Your task to perform on an android device: toggle improve location accuracy Image 0: 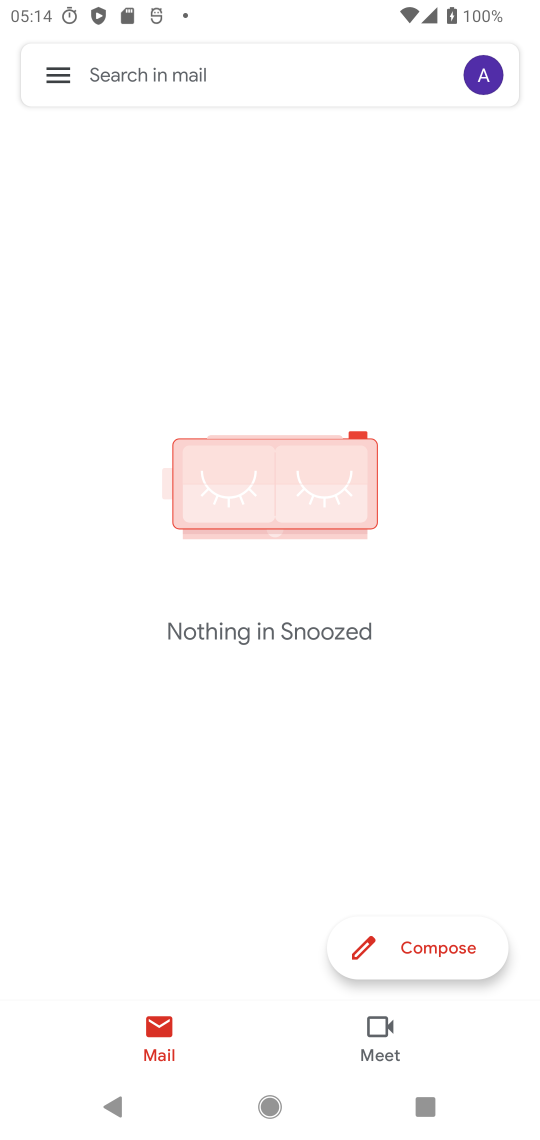
Step 0: press home button
Your task to perform on an android device: toggle improve location accuracy Image 1: 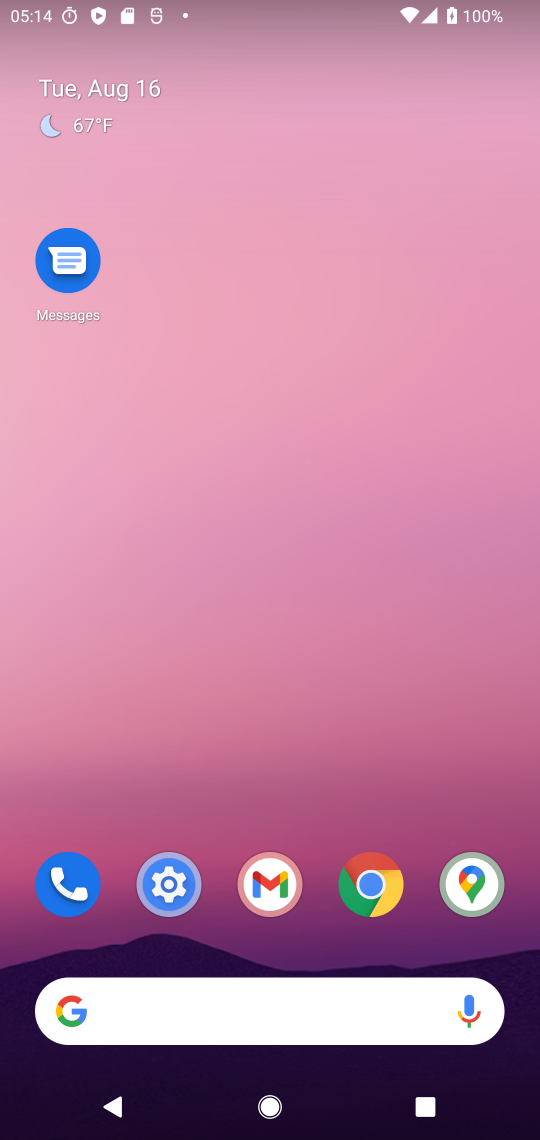
Step 1: click (173, 892)
Your task to perform on an android device: toggle improve location accuracy Image 2: 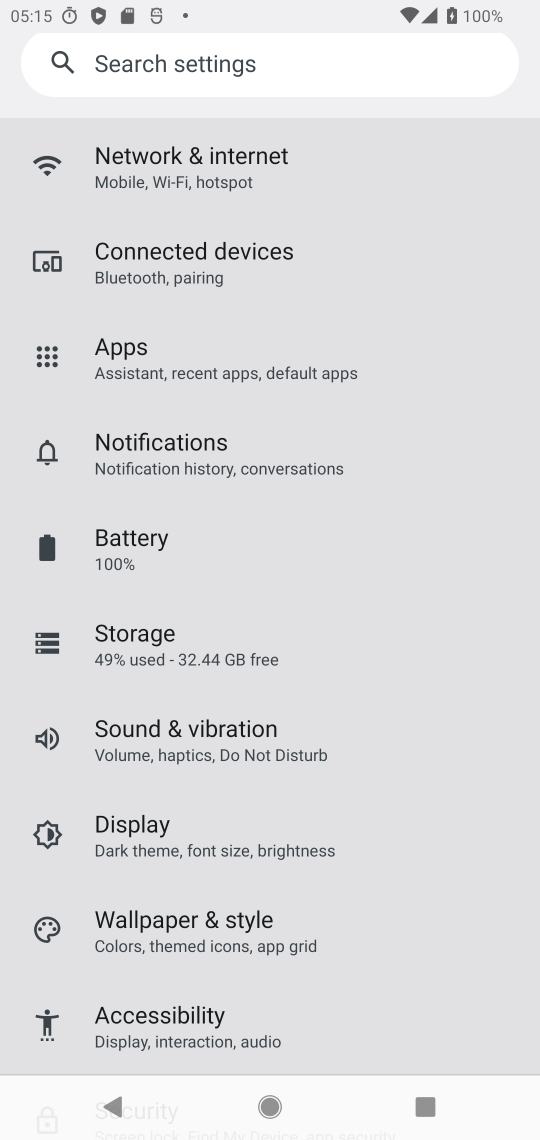
Step 2: drag from (383, 1028) to (401, 333)
Your task to perform on an android device: toggle improve location accuracy Image 3: 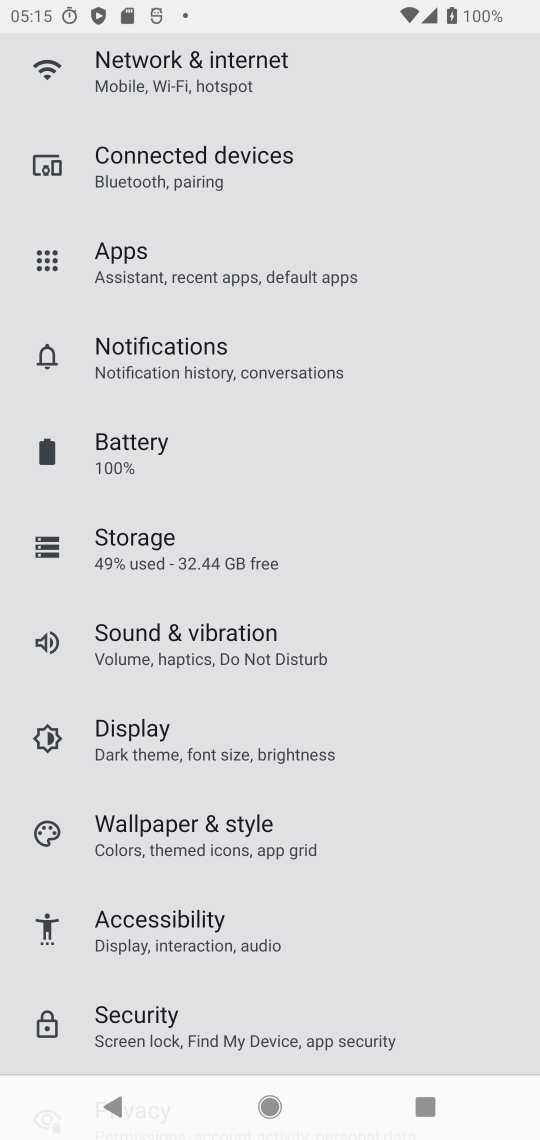
Step 3: drag from (437, 954) to (477, 469)
Your task to perform on an android device: toggle improve location accuracy Image 4: 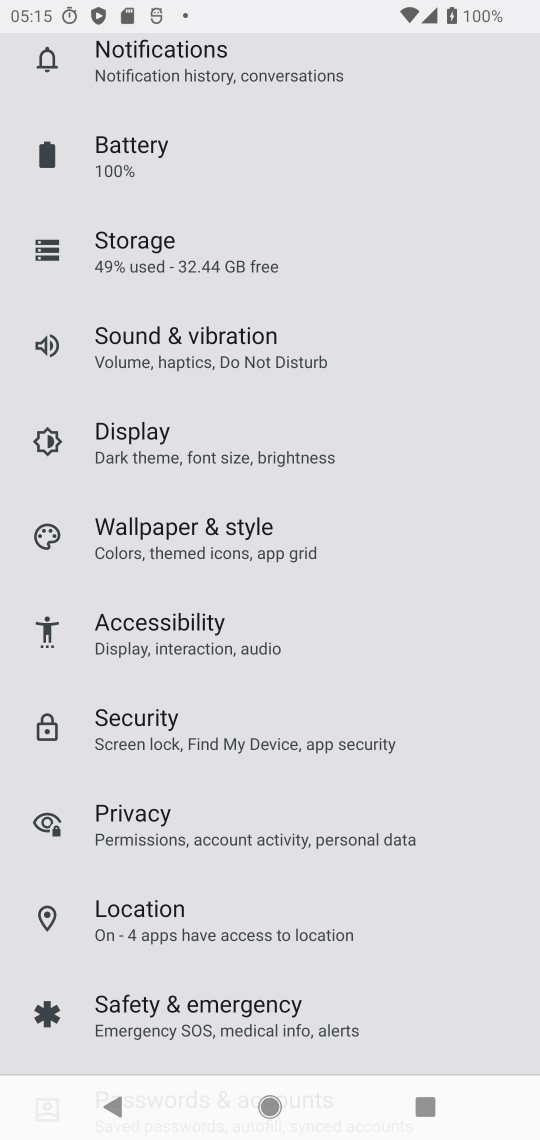
Step 4: click (167, 922)
Your task to perform on an android device: toggle improve location accuracy Image 5: 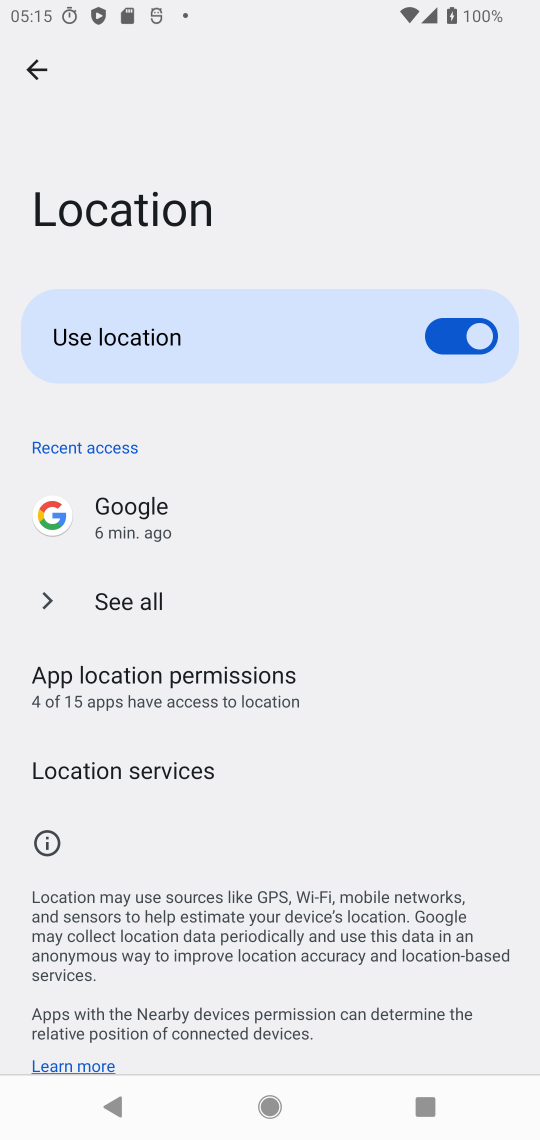
Step 5: click (181, 787)
Your task to perform on an android device: toggle improve location accuracy Image 6: 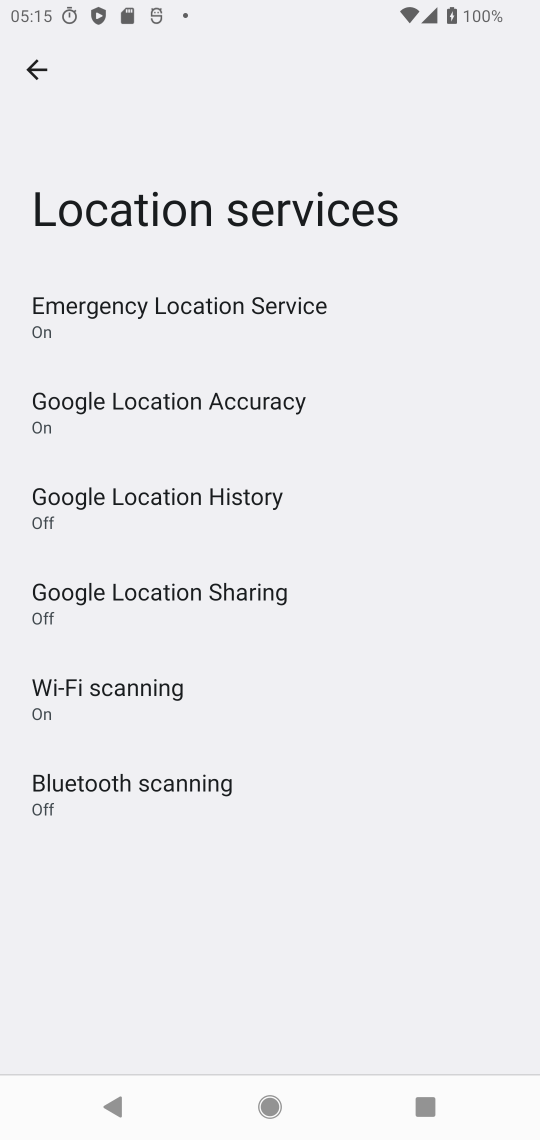
Step 6: task complete